Your task to perform on an android device: Go to Android settings Image 0: 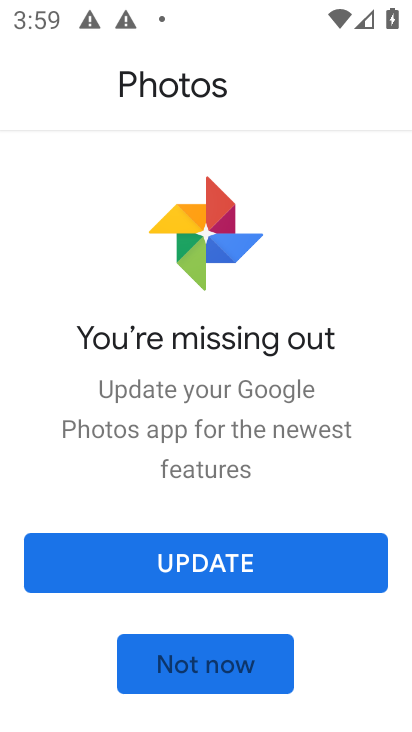
Step 0: press home button
Your task to perform on an android device: Go to Android settings Image 1: 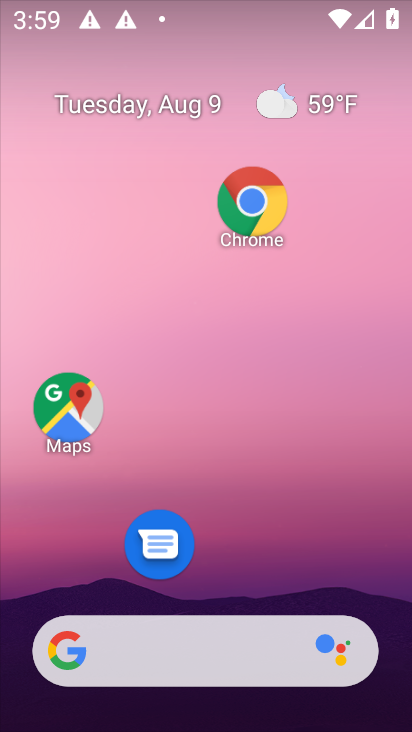
Step 1: drag from (220, 516) to (255, 265)
Your task to perform on an android device: Go to Android settings Image 2: 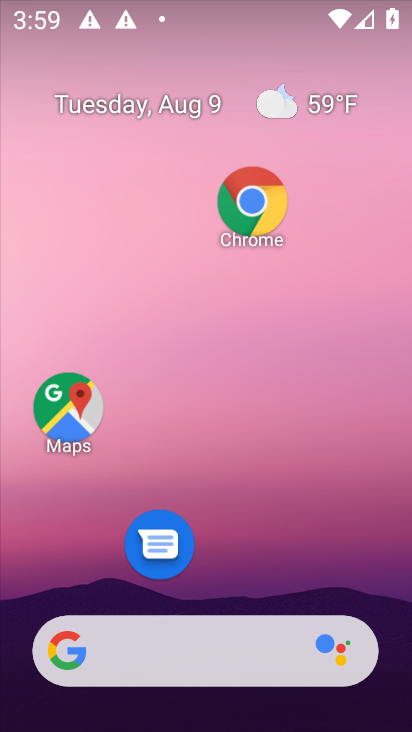
Step 2: drag from (171, 655) to (258, 201)
Your task to perform on an android device: Go to Android settings Image 3: 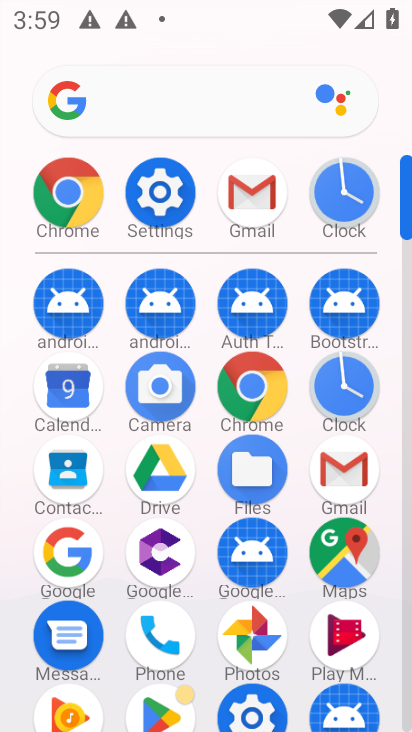
Step 3: click (174, 184)
Your task to perform on an android device: Go to Android settings Image 4: 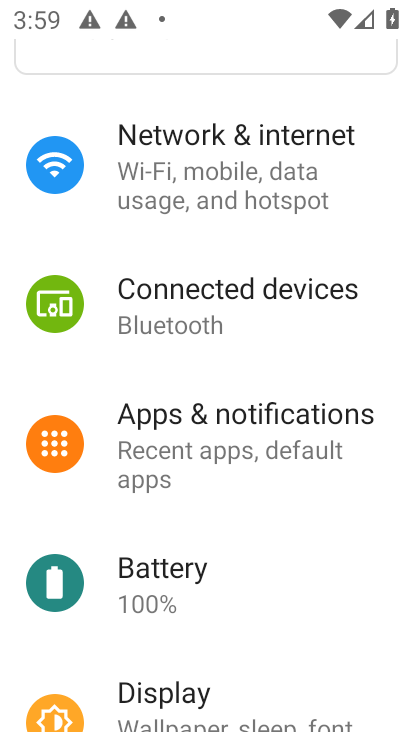
Step 4: drag from (119, 617) to (223, 181)
Your task to perform on an android device: Go to Android settings Image 5: 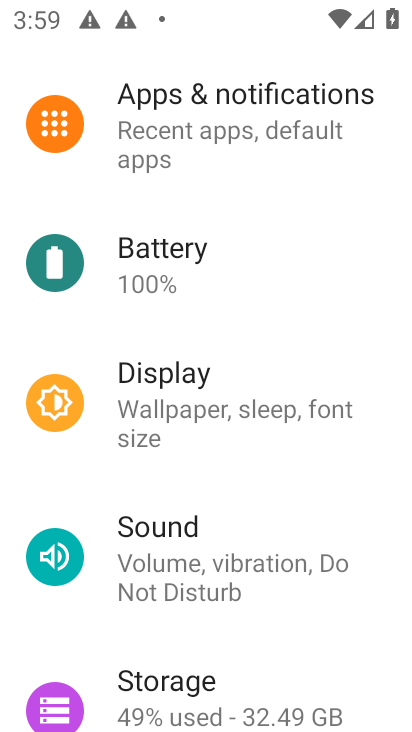
Step 5: drag from (205, 592) to (265, 219)
Your task to perform on an android device: Go to Android settings Image 6: 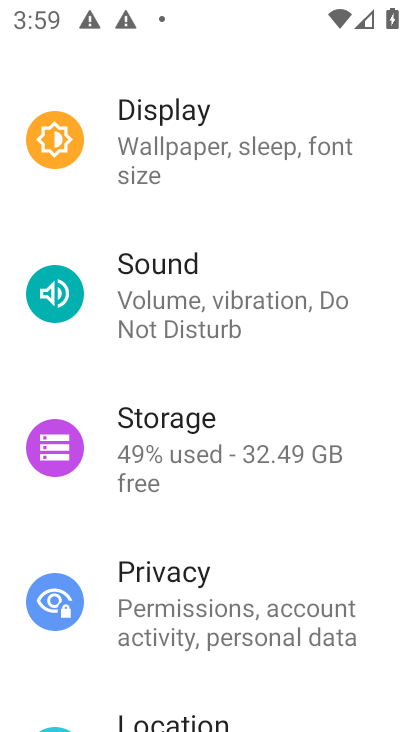
Step 6: drag from (207, 669) to (271, 293)
Your task to perform on an android device: Go to Android settings Image 7: 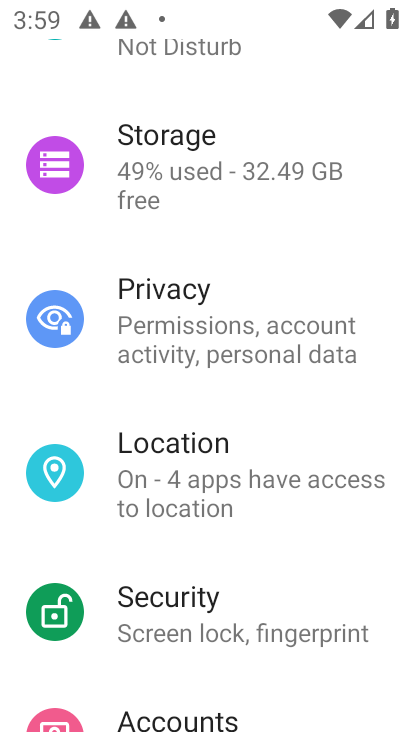
Step 7: press home button
Your task to perform on an android device: Go to Android settings Image 8: 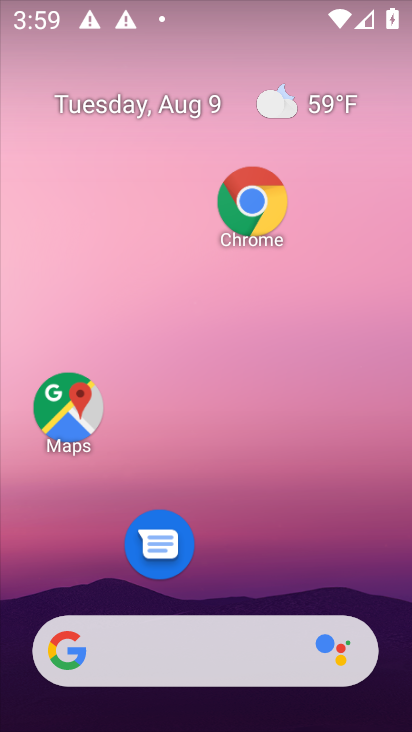
Step 8: drag from (246, 558) to (330, 159)
Your task to perform on an android device: Go to Android settings Image 9: 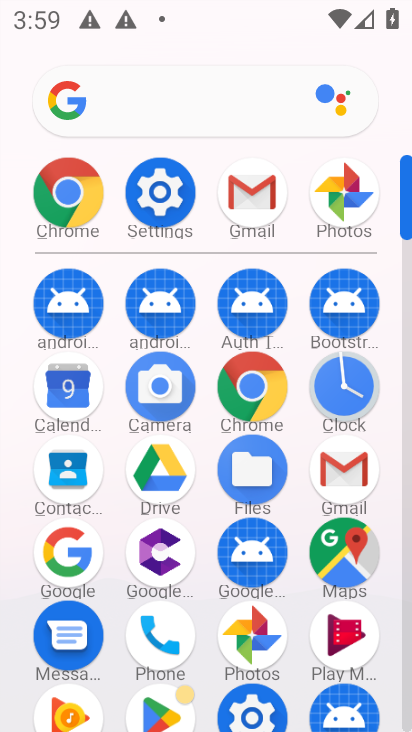
Step 9: click (146, 189)
Your task to perform on an android device: Go to Android settings Image 10: 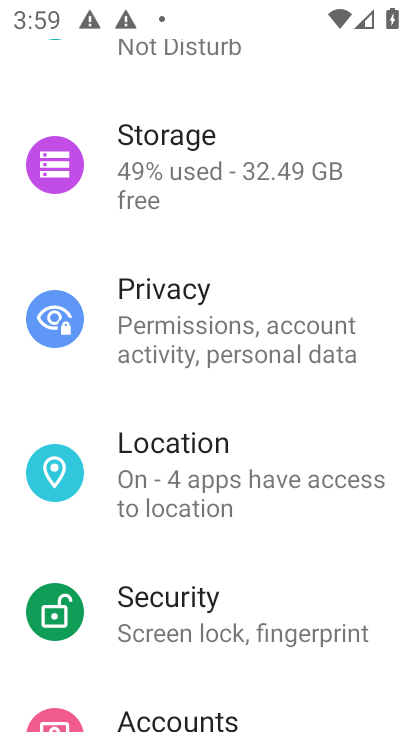
Step 10: task complete